Your task to perform on an android device: Open network settings Image 0: 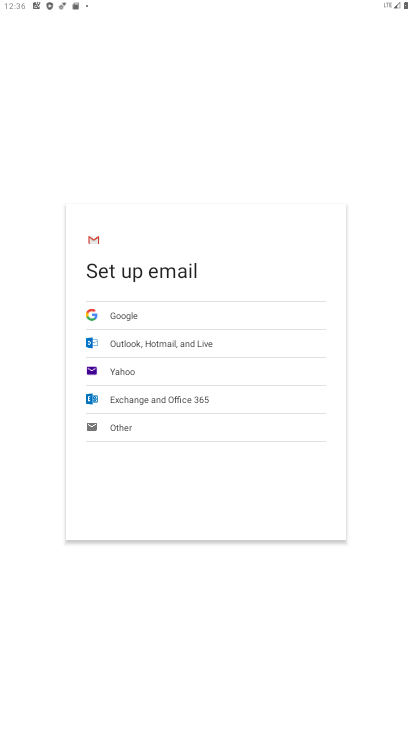
Step 0: press home button
Your task to perform on an android device: Open network settings Image 1: 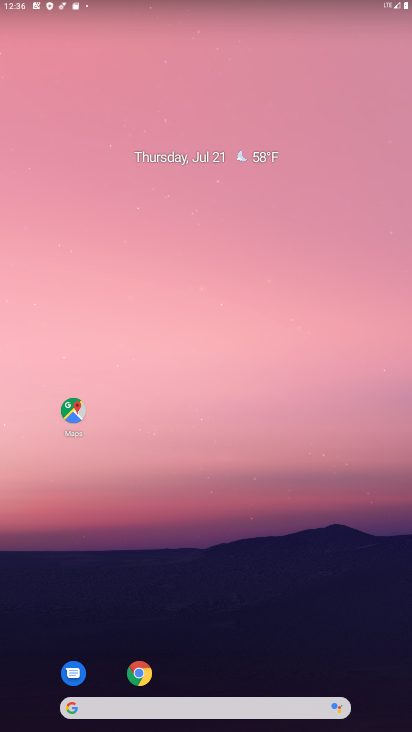
Step 1: drag from (219, 700) to (287, 159)
Your task to perform on an android device: Open network settings Image 2: 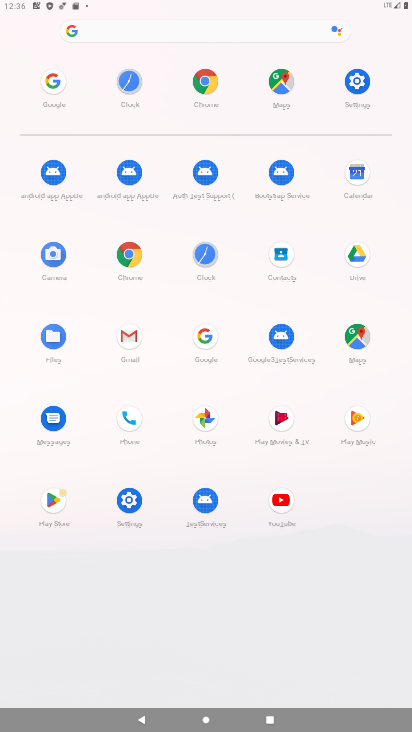
Step 2: click (350, 77)
Your task to perform on an android device: Open network settings Image 3: 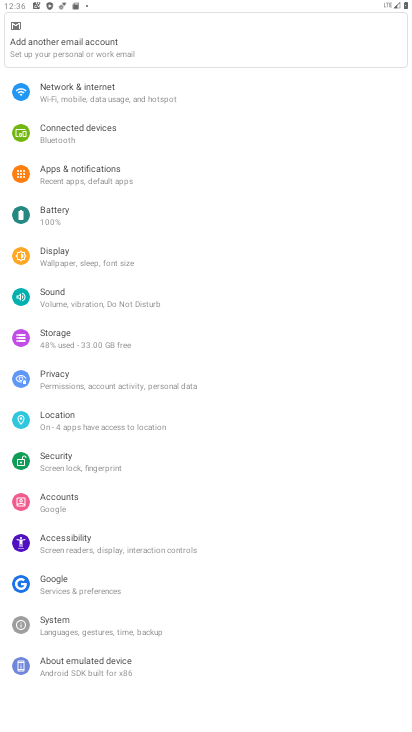
Step 3: click (118, 102)
Your task to perform on an android device: Open network settings Image 4: 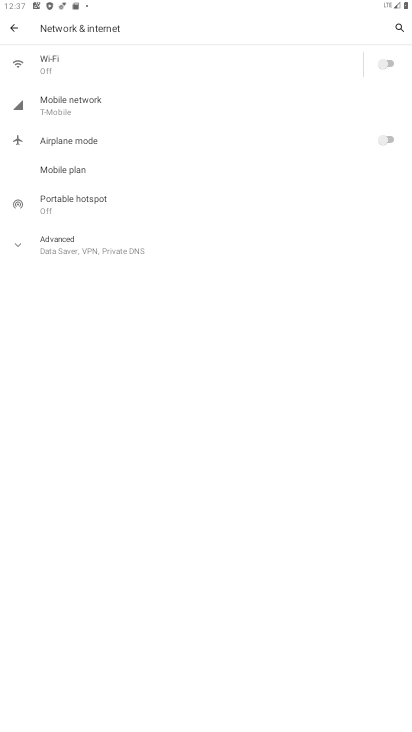
Step 4: task complete